Your task to perform on an android device: turn pop-ups on in chrome Image 0: 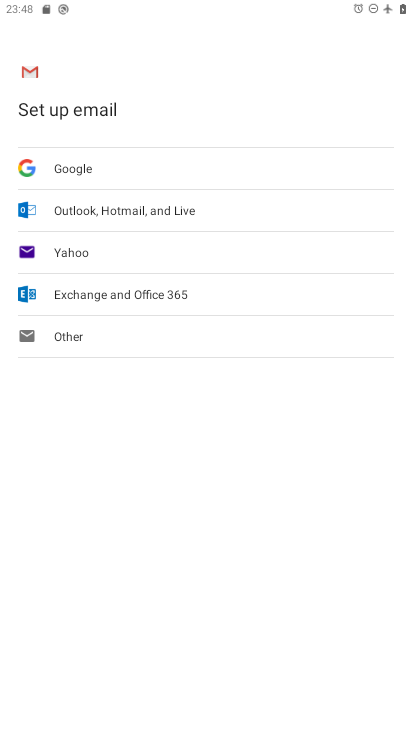
Step 0: press home button
Your task to perform on an android device: turn pop-ups on in chrome Image 1: 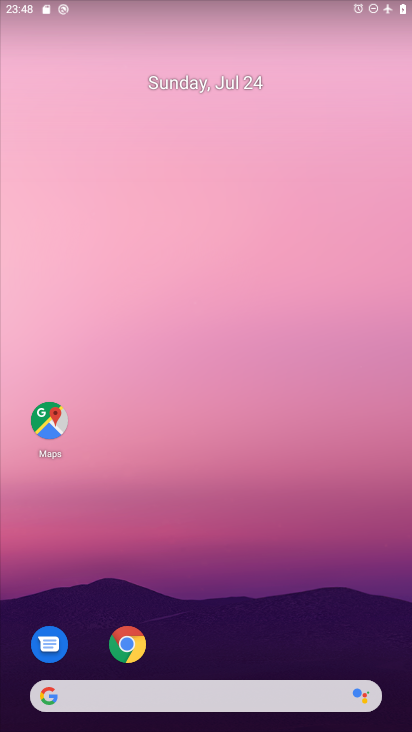
Step 1: click (122, 643)
Your task to perform on an android device: turn pop-ups on in chrome Image 2: 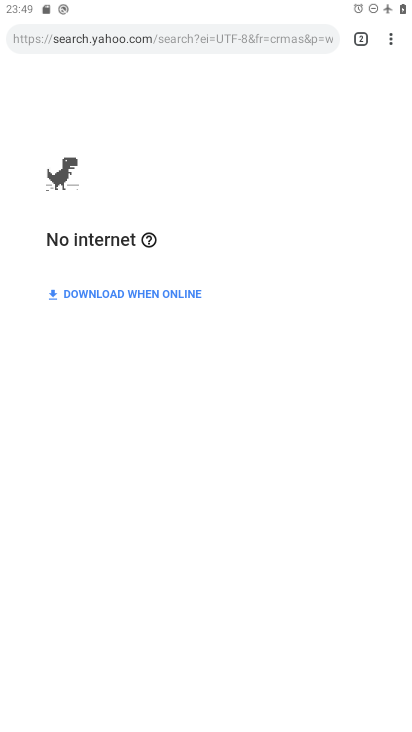
Step 2: click (392, 42)
Your task to perform on an android device: turn pop-ups on in chrome Image 3: 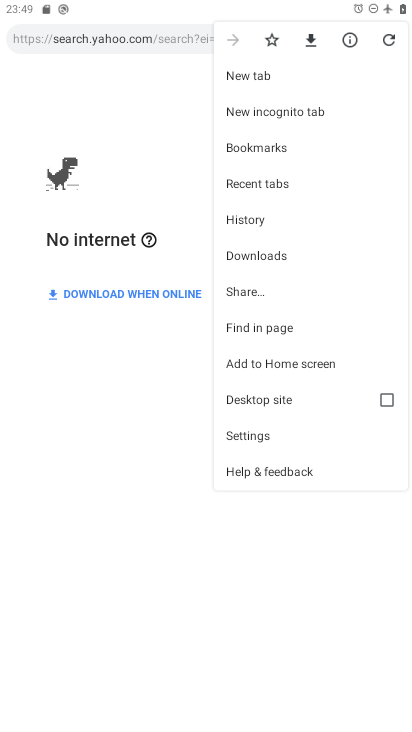
Step 3: click (230, 435)
Your task to perform on an android device: turn pop-ups on in chrome Image 4: 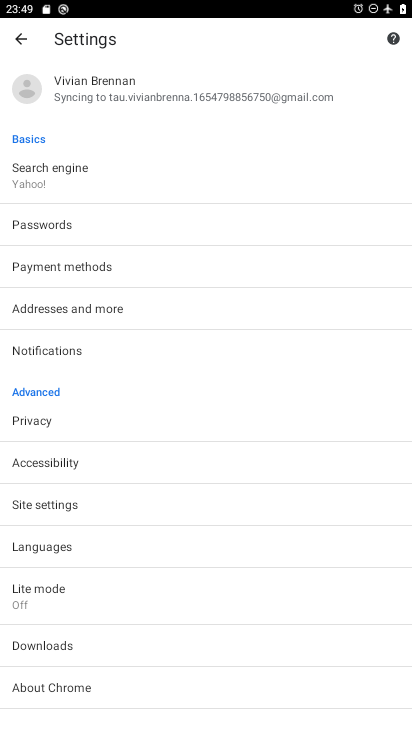
Step 4: click (41, 505)
Your task to perform on an android device: turn pop-ups on in chrome Image 5: 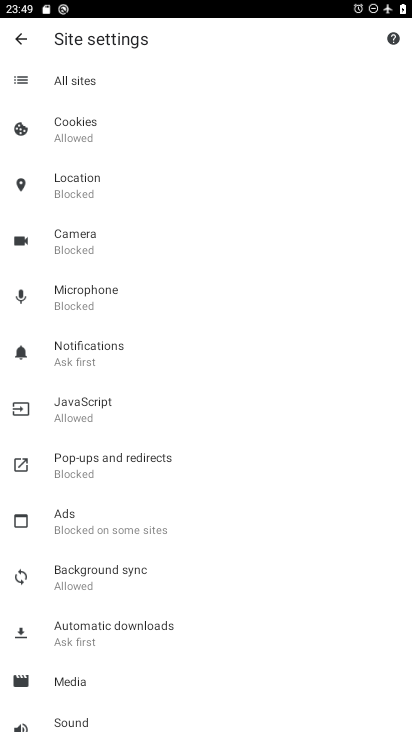
Step 5: click (91, 459)
Your task to perform on an android device: turn pop-ups on in chrome Image 6: 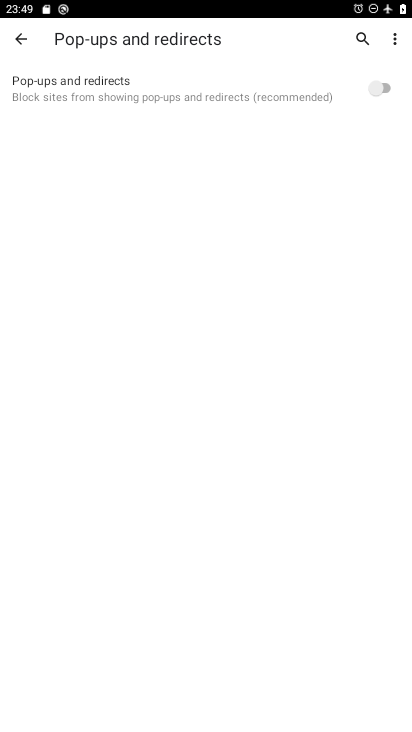
Step 6: click (388, 90)
Your task to perform on an android device: turn pop-ups on in chrome Image 7: 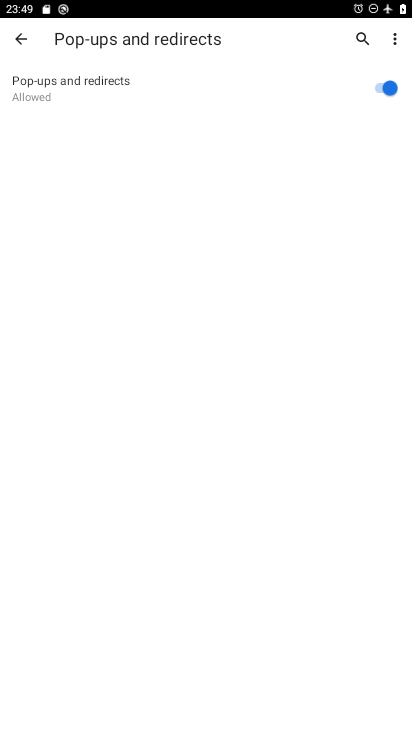
Step 7: task complete